Your task to perform on an android device: Open ESPN.com Image 0: 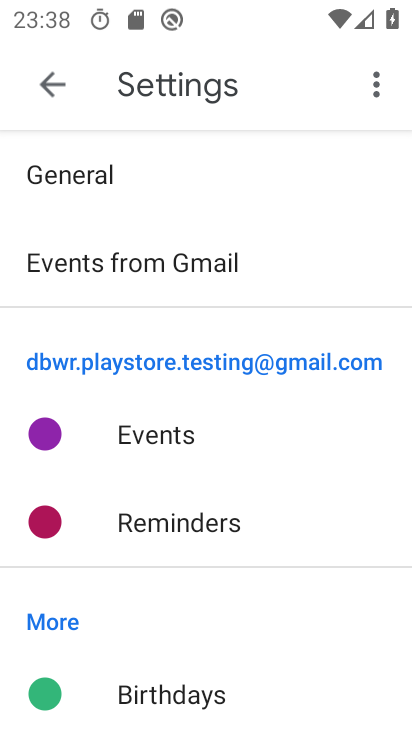
Step 0: press home button
Your task to perform on an android device: Open ESPN.com Image 1: 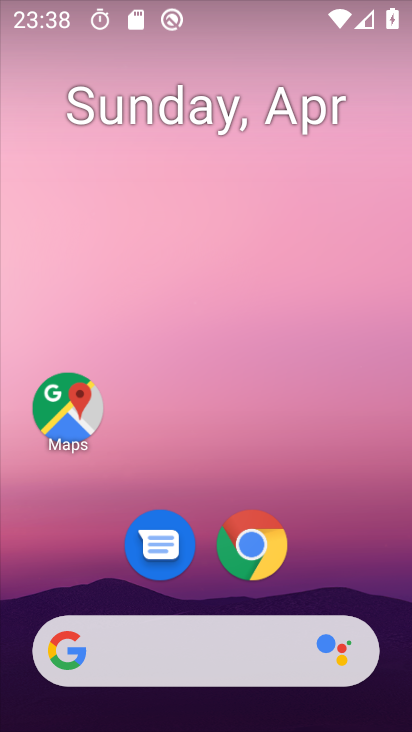
Step 1: drag from (332, 562) to (333, 226)
Your task to perform on an android device: Open ESPN.com Image 2: 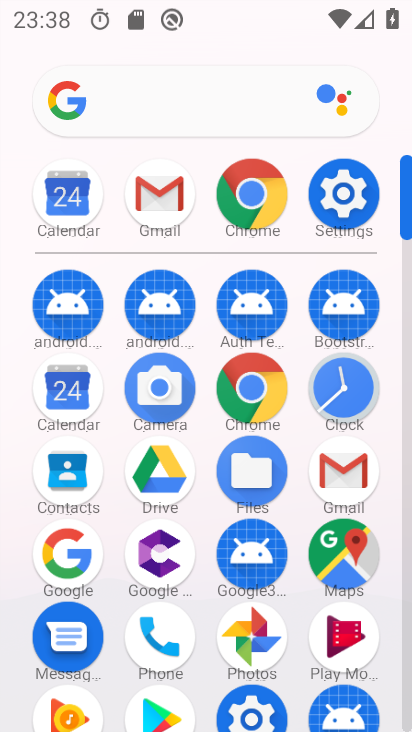
Step 2: click (253, 192)
Your task to perform on an android device: Open ESPN.com Image 3: 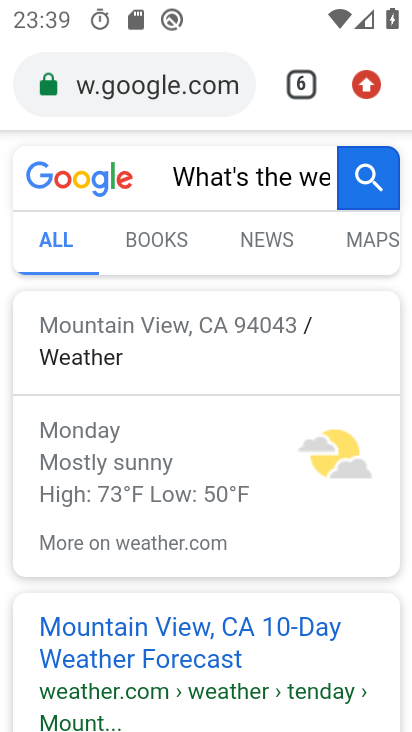
Step 3: click (358, 86)
Your task to perform on an android device: Open ESPN.com Image 4: 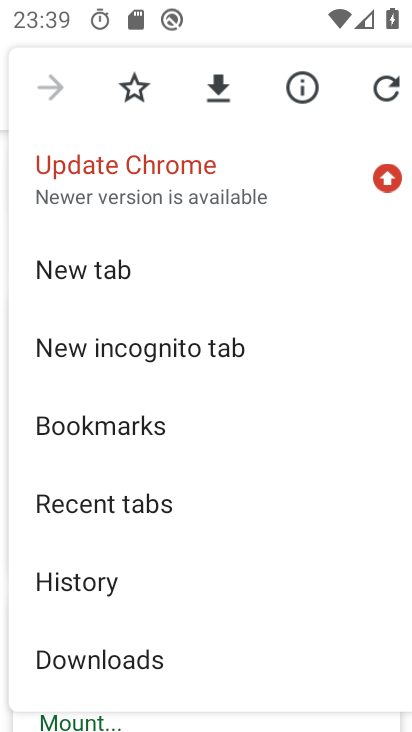
Step 4: click (201, 267)
Your task to perform on an android device: Open ESPN.com Image 5: 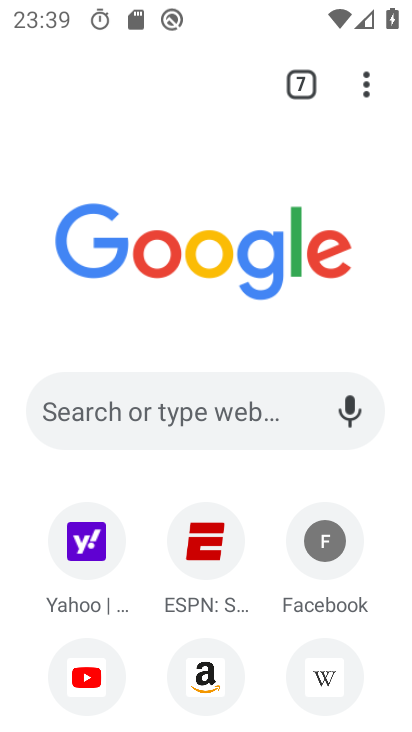
Step 5: click (229, 532)
Your task to perform on an android device: Open ESPN.com Image 6: 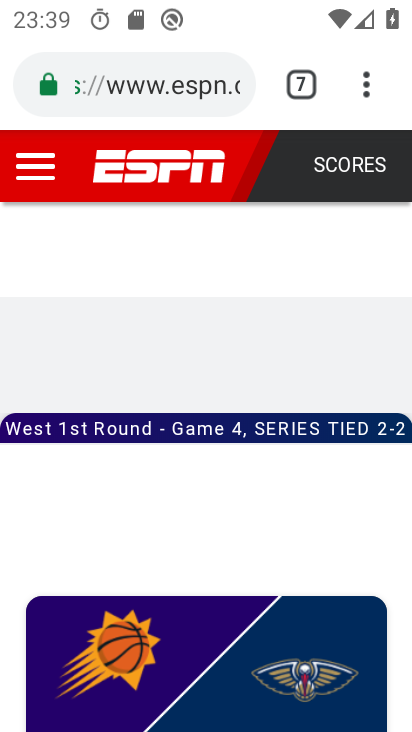
Step 6: task complete